Your task to perform on an android device: turn off javascript in the chrome app Image 0: 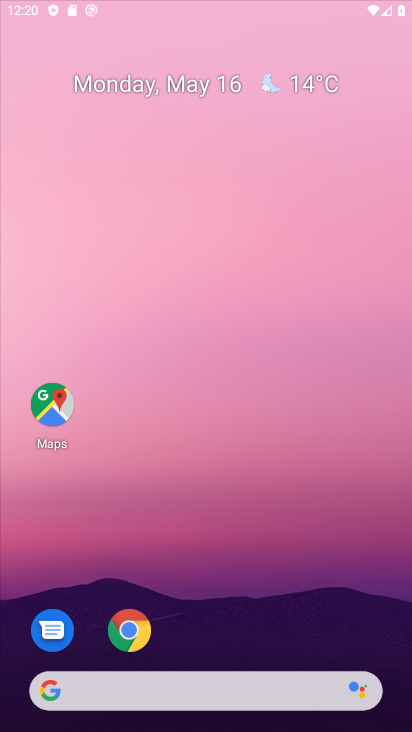
Step 0: press home button
Your task to perform on an android device: turn off javascript in the chrome app Image 1: 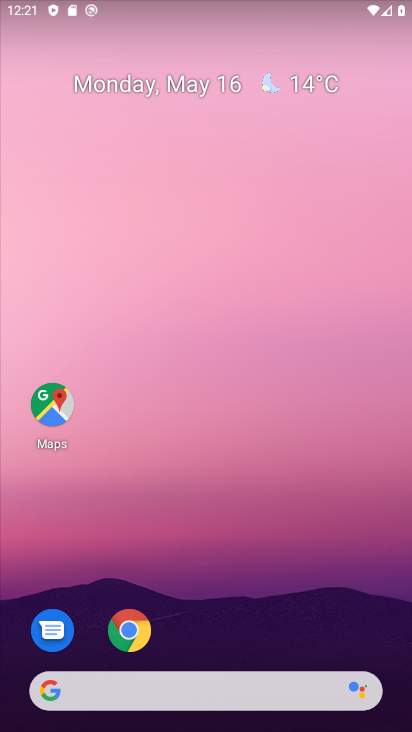
Step 1: click (126, 633)
Your task to perform on an android device: turn off javascript in the chrome app Image 2: 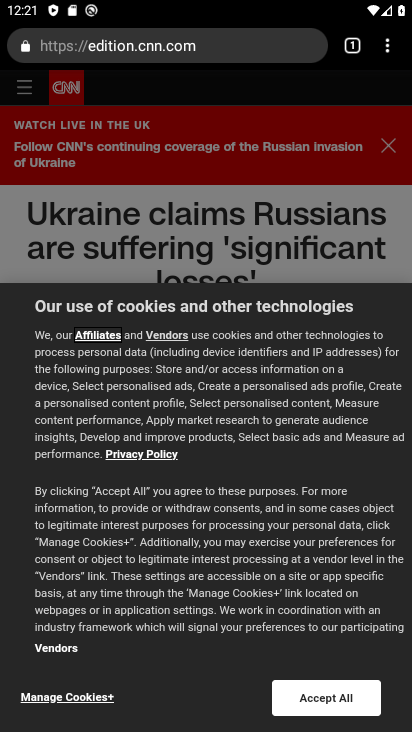
Step 2: click (395, 49)
Your task to perform on an android device: turn off javascript in the chrome app Image 3: 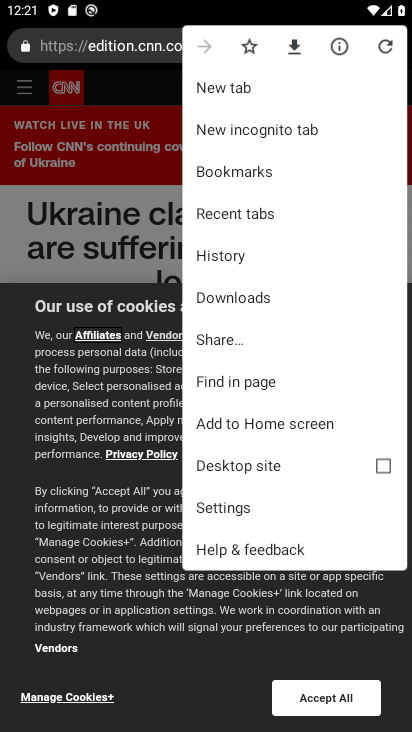
Step 3: click (252, 509)
Your task to perform on an android device: turn off javascript in the chrome app Image 4: 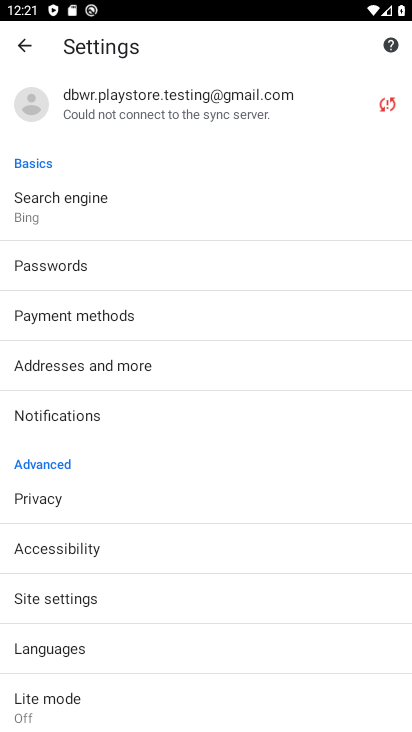
Step 4: click (79, 601)
Your task to perform on an android device: turn off javascript in the chrome app Image 5: 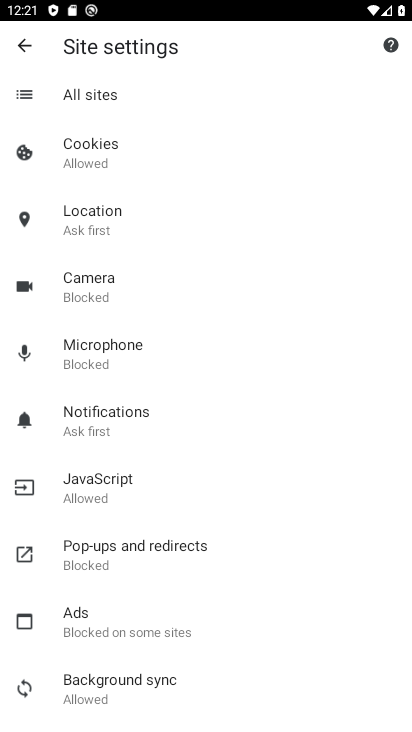
Step 5: click (164, 493)
Your task to perform on an android device: turn off javascript in the chrome app Image 6: 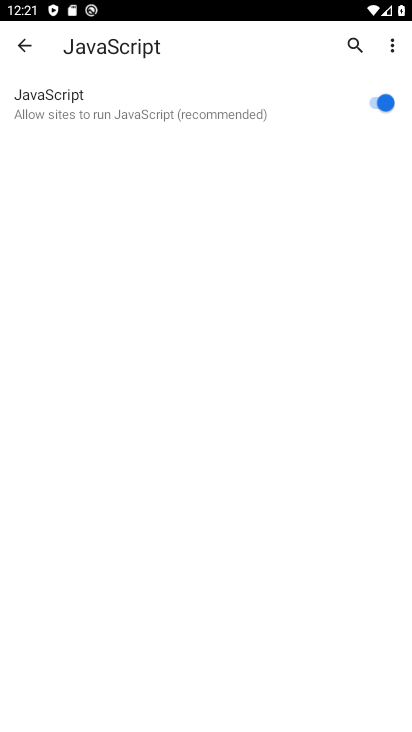
Step 6: click (381, 101)
Your task to perform on an android device: turn off javascript in the chrome app Image 7: 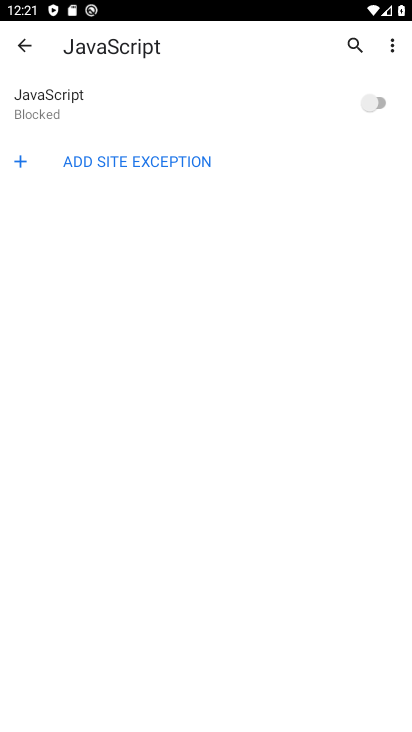
Step 7: task complete